Your task to perform on an android device: toggle airplane mode Image 0: 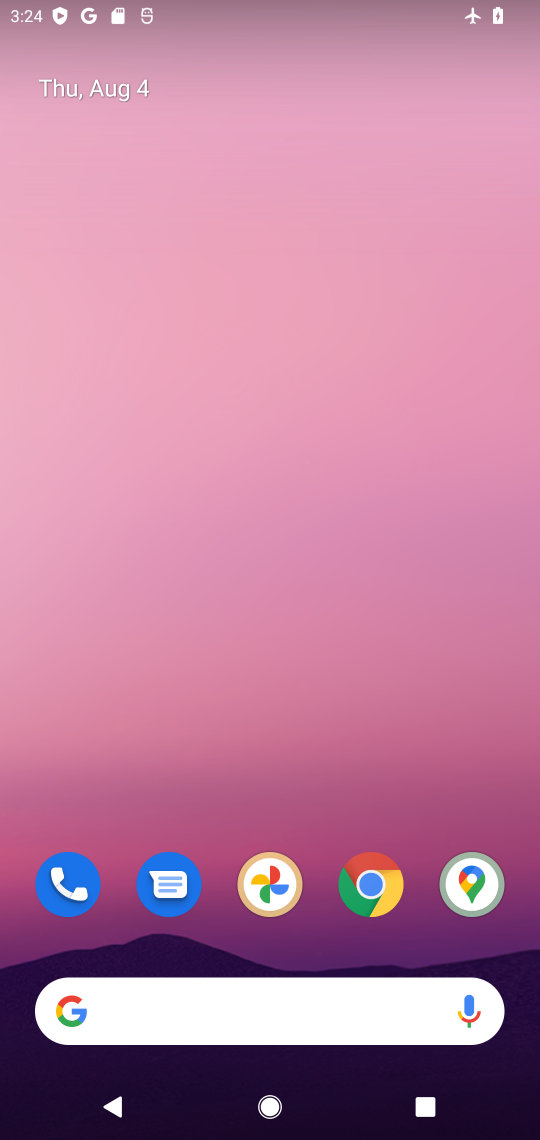
Step 0: drag from (235, 948) to (255, 105)
Your task to perform on an android device: toggle airplane mode Image 1: 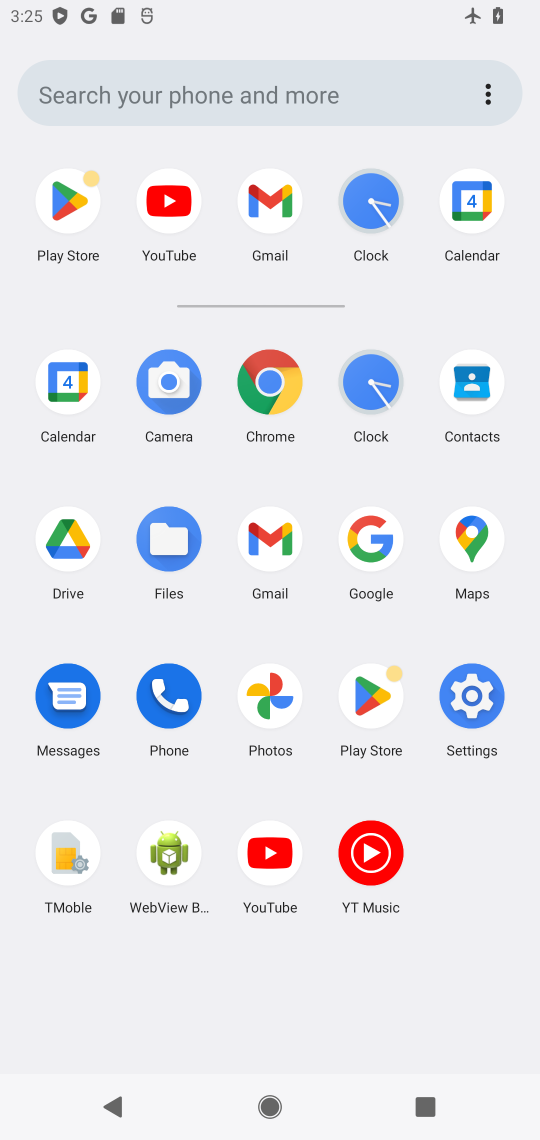
Step 1: click (469, 684)
Your task to perform on an android device: toggle airplane mode Image 2: 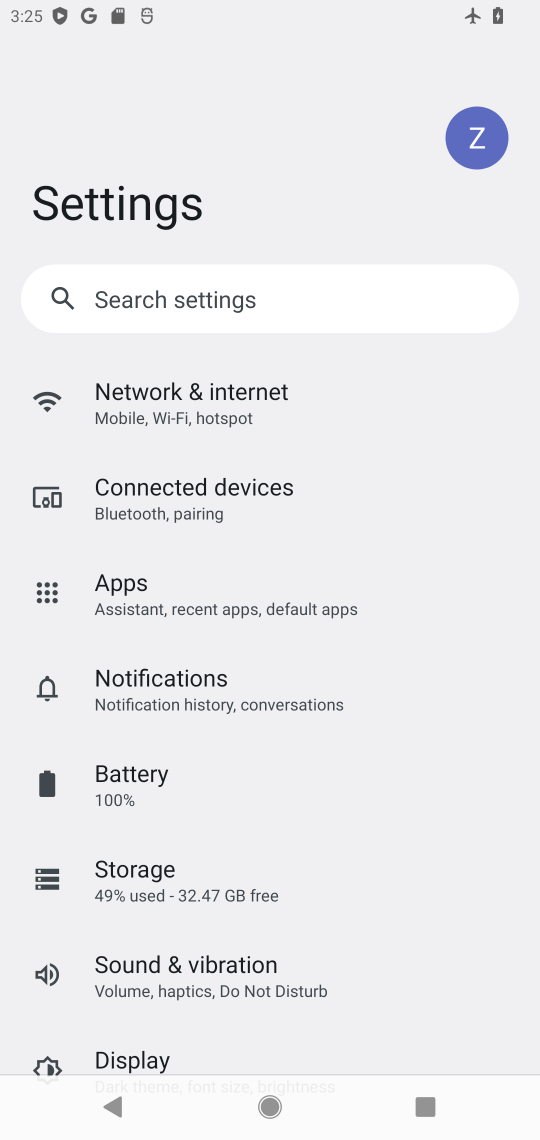
Step 2: click (165, 393)
Your task to perform on an android device: toggle airplane mode Image 3: 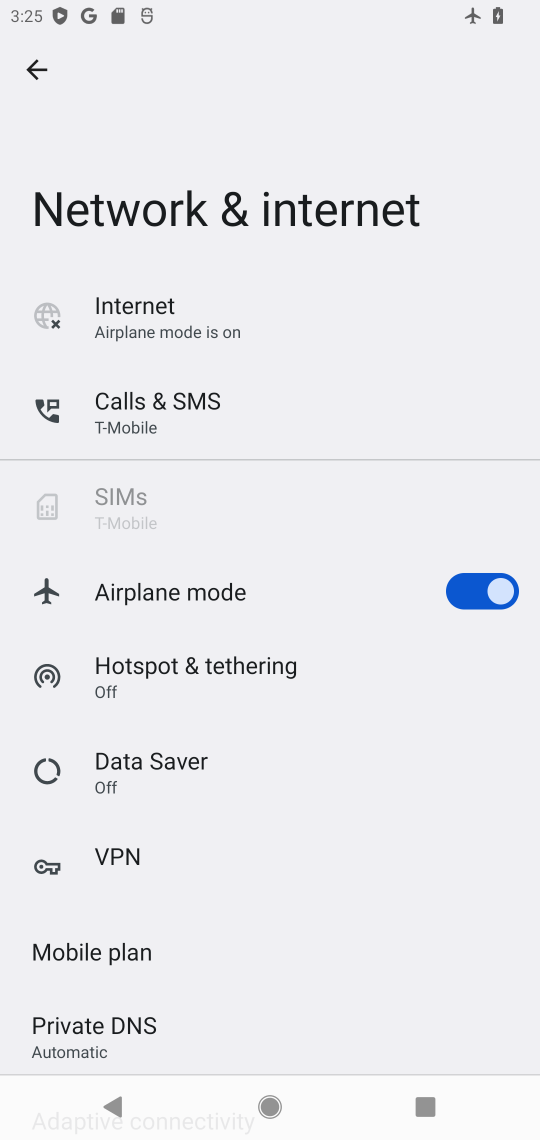
Step 3: click (473, 588)
Your task to perform on an android device: toggle airplane mode Image 4: 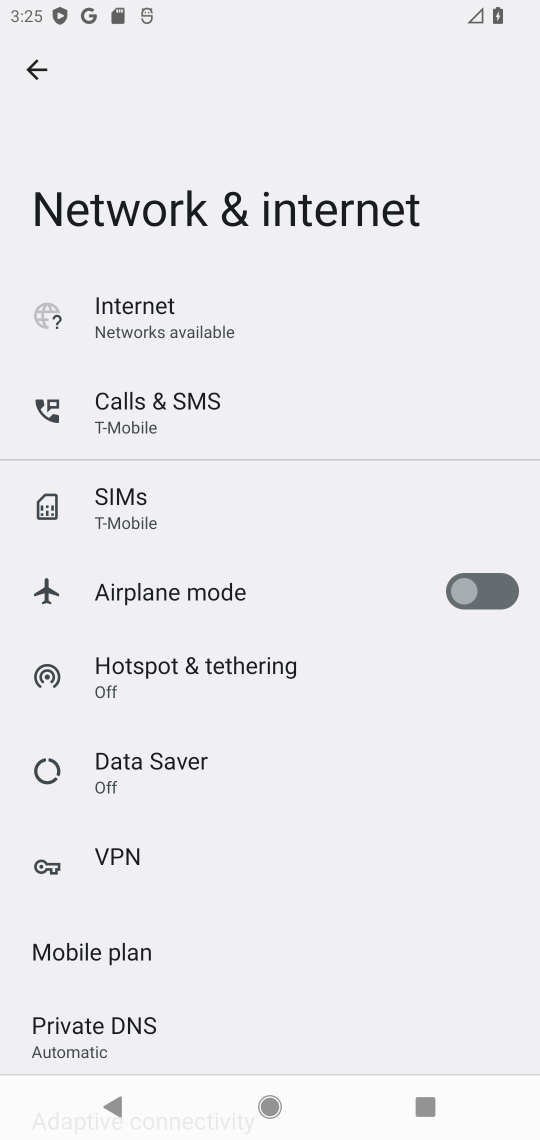
Step 4: task complete